Your task to perform on an android device: Open Youtube and go to "Your channel" Image 0: 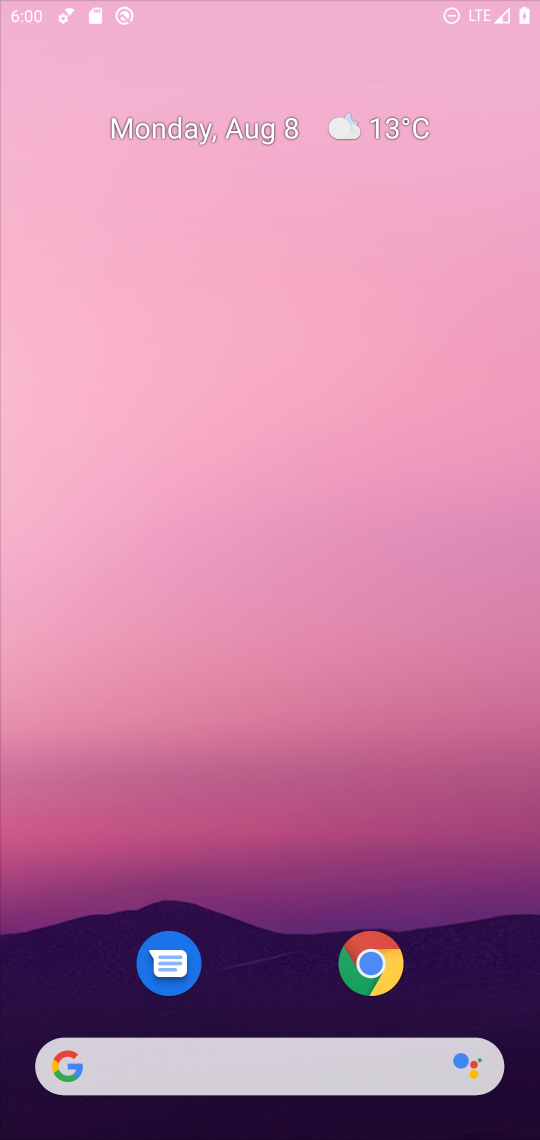
Step 0: press home button
Your task to perform on an android device: Open Youtube and go to "Your channel" Image 1: 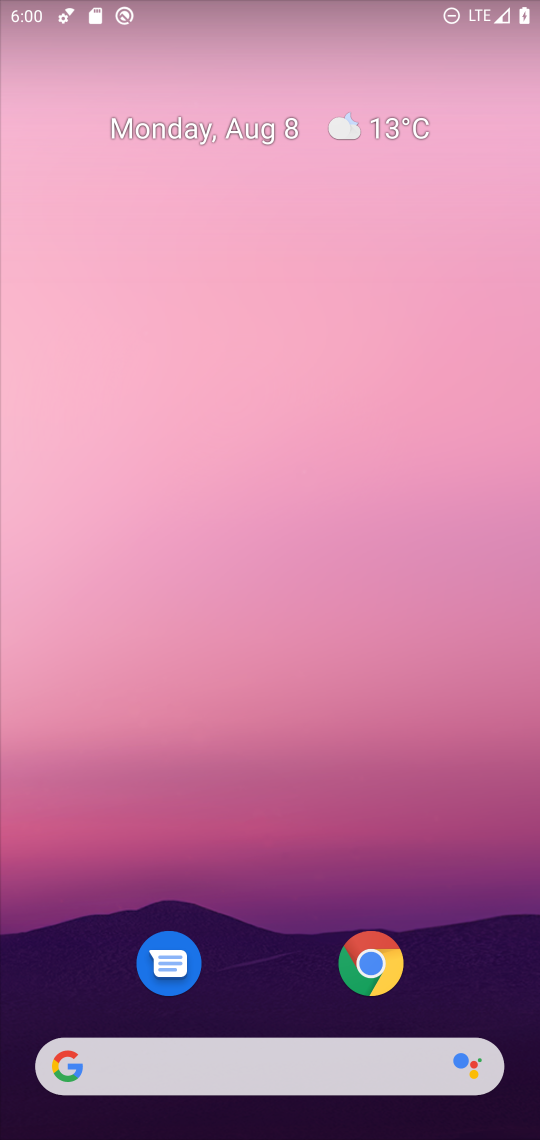
Step 1: drag from (290, 958) to (369, 149)
Your task to perform on an android device: Open Youtube and go to "Your channel" Image 2: 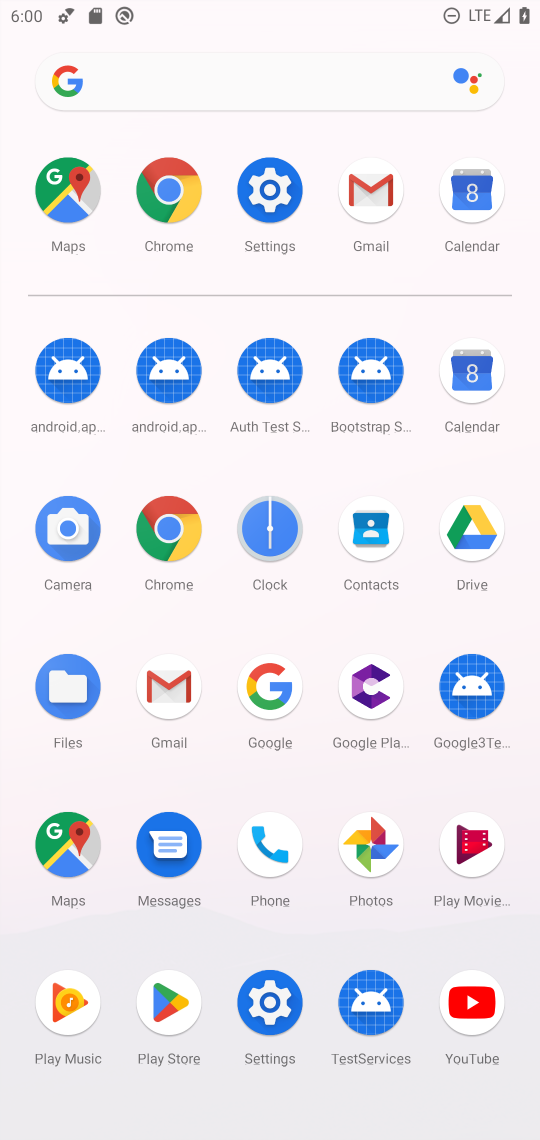
Step 2: click (484, 1011)
Your task to perform on an android device: Open Youtube and go to "Your channel" Image 3: 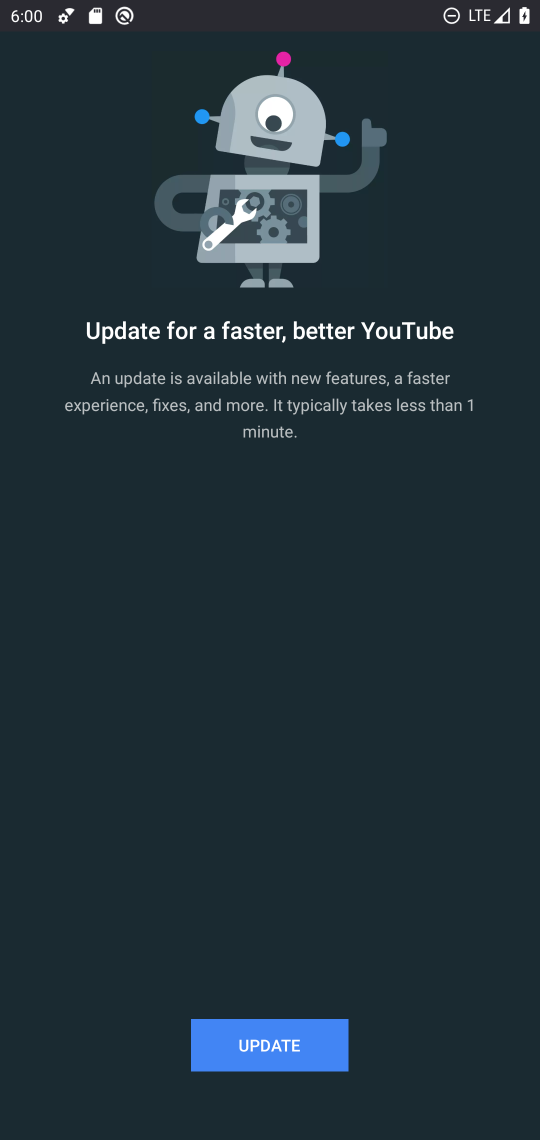
Step 3: click (316, 1034)
Your task to perform on an android device: Open Youtube and go to "Your channel" Image 4: 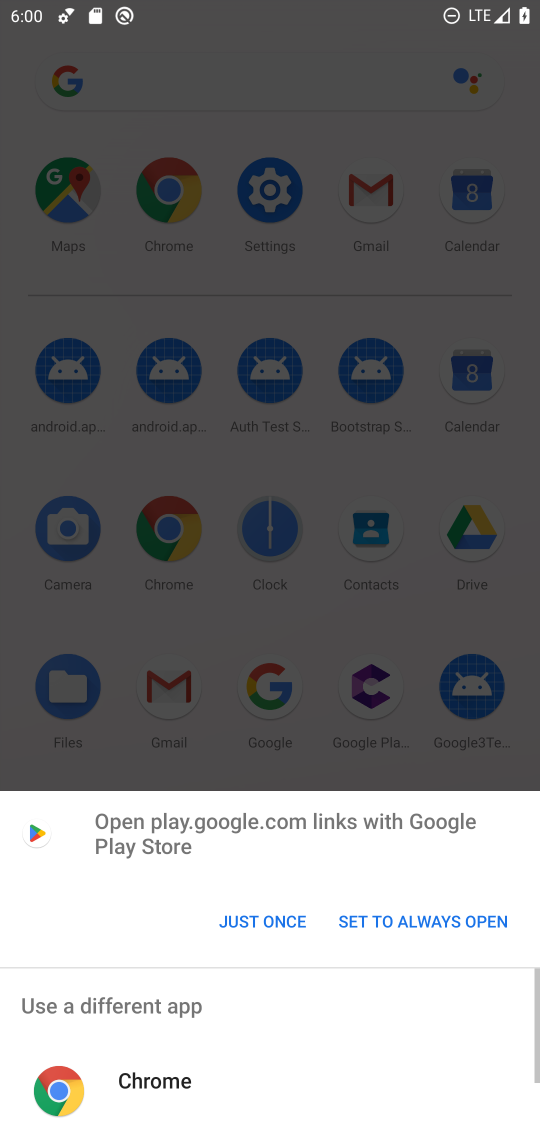
Step 4: click (273, 918)
Your task to perform on an android device: Open Youtube and go to "Your channel" Image 5: 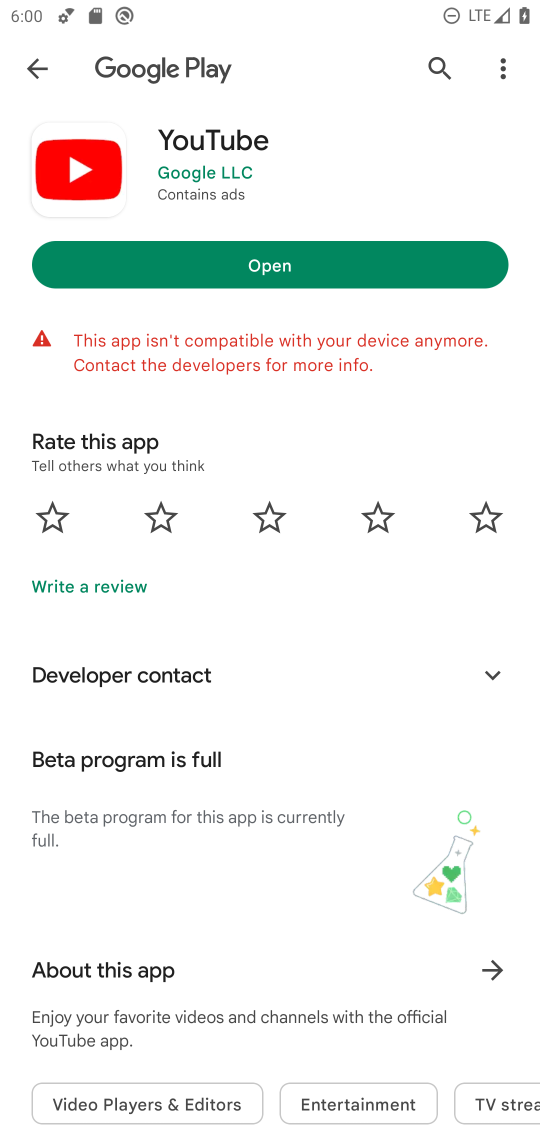
Step 5: task complete